Your task to perform on an android device: Go to battery settings Image 0: 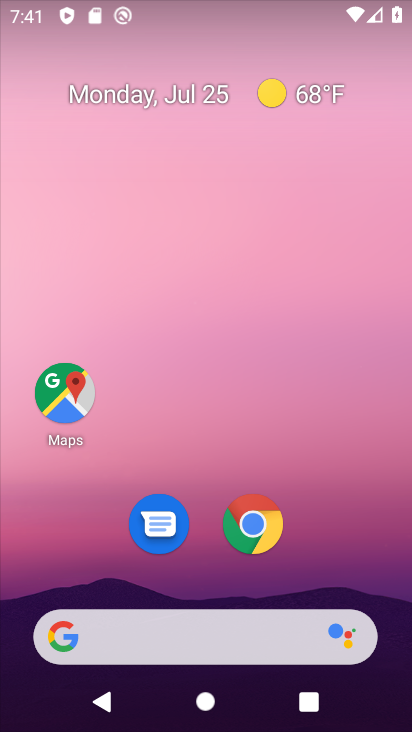
Step 0: drag from (336, 540) to (325, 44)
Your task to perform on an android device: Go to battery settings Image 1: 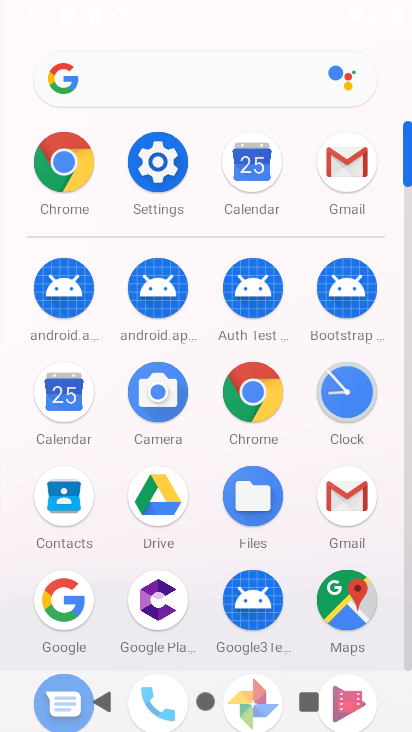
Step 1: click (173, 165)
Your task to perform on an android device: Go to battery settings Image 2: 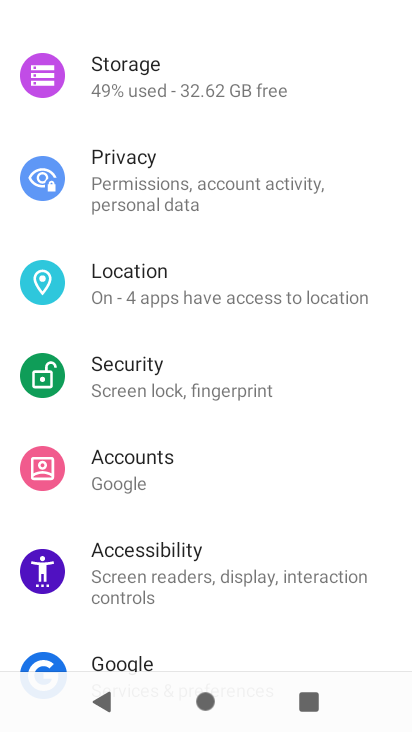
Step 2: drag from (213, 139) to (215, 568)
Your task to perform on an android device: Go to battery settings Image 3: 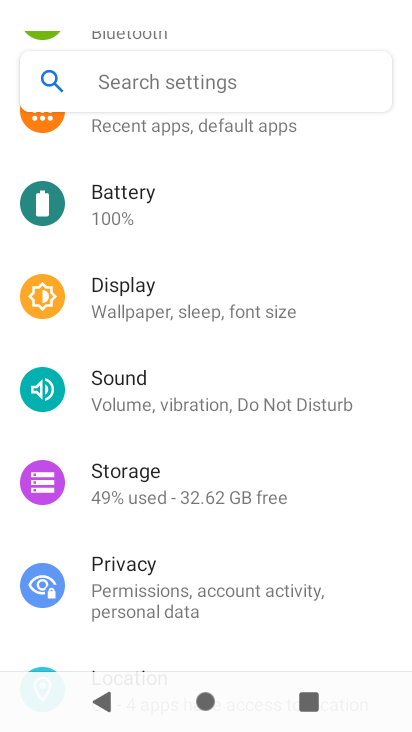
Step 3: click (130, 190)
Your task to perform on an android device: Go to battery settings Image 4: 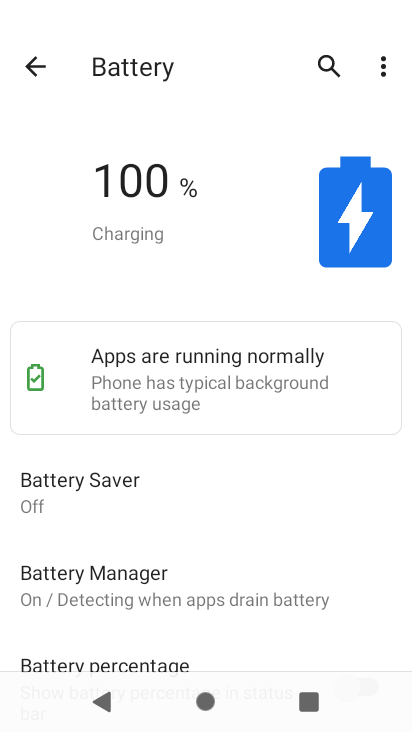
Step 4: task complete